Your task to perform on an android device: Is it going to rain tomorrow? Image 0: 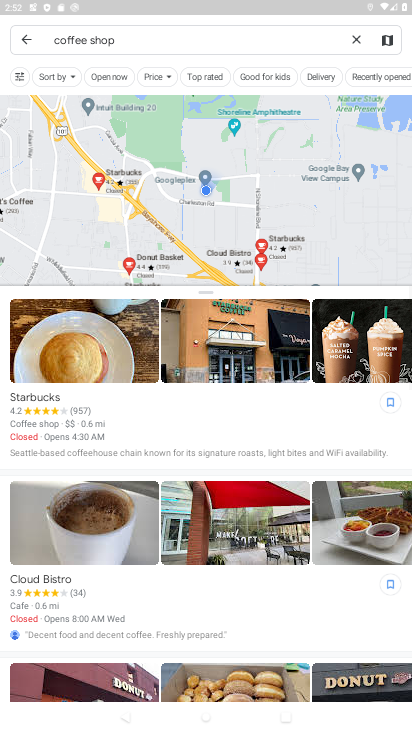
Step 0: press home button
Your task to perform on an android device: Is it going to rain tomorrow? Image 1: 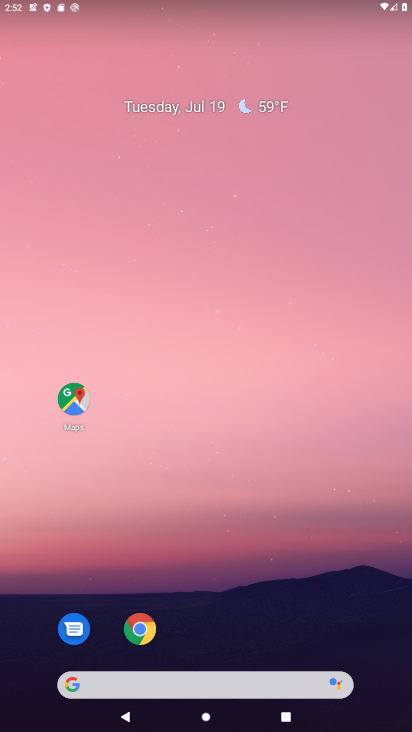
Step 1: click (170, 673)
Your task to perform on an android device: Is it going to rain tomorrow? Image 2: 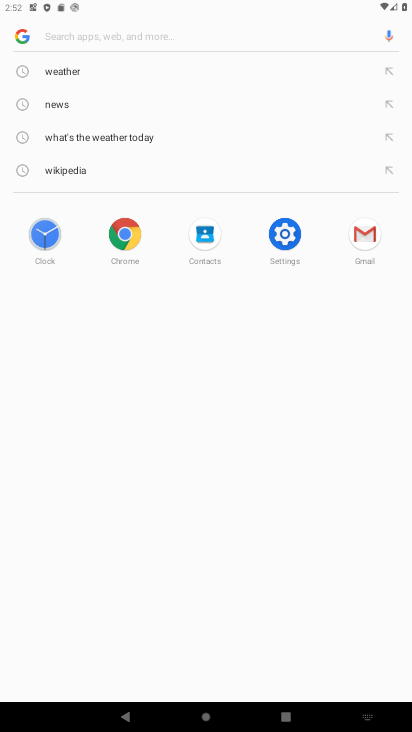
Step 2: click (76, 76)
Your task to perform on an android device: Is it going to rain tomorrow? Image 3: 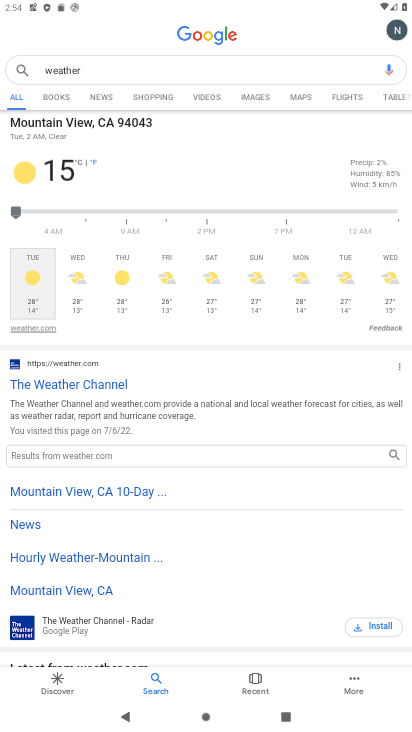
Step 3: click (81, 317)
Your task to perform on an android device: Is it going to rain tomorrow? Image 4: 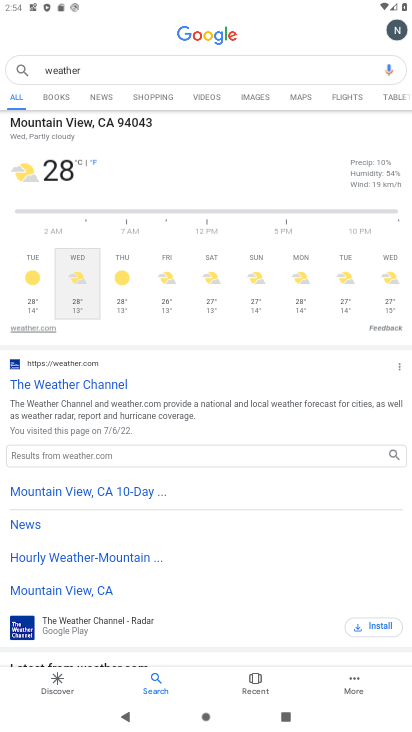
Step 4: task complete